Your task to perform on an android device: toggle priority inbox in the gmail app Image 0: 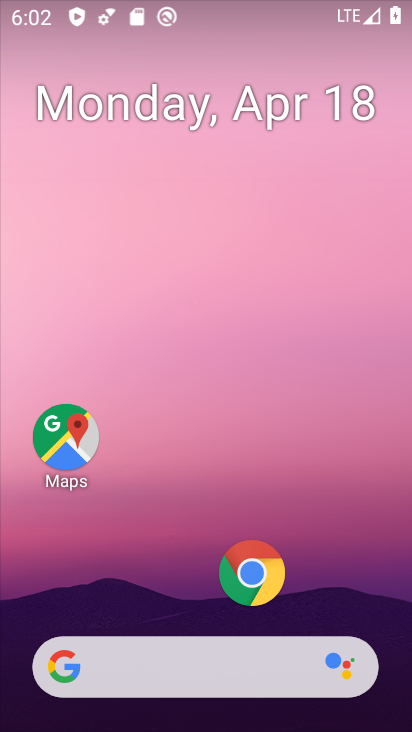
Step 0: drag from (152, 590) to (334, 4)
Your task to perform on an android device: toggle priority inbox in the gmail app Image 1: 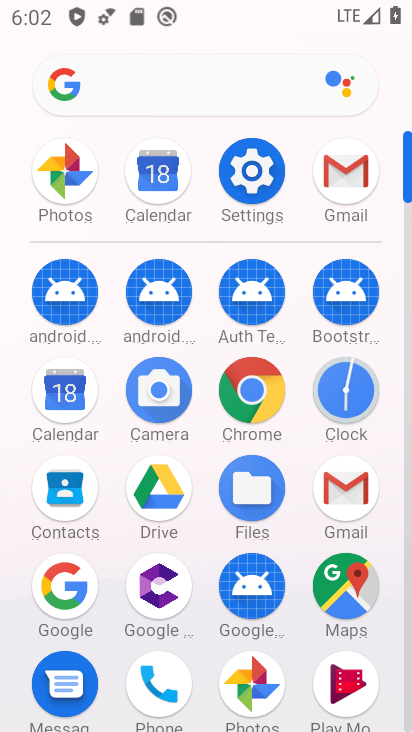
Step 1: click (341, 491)
Your task to perform on an android device: toggle priority inbox in the gmail app Image 2: 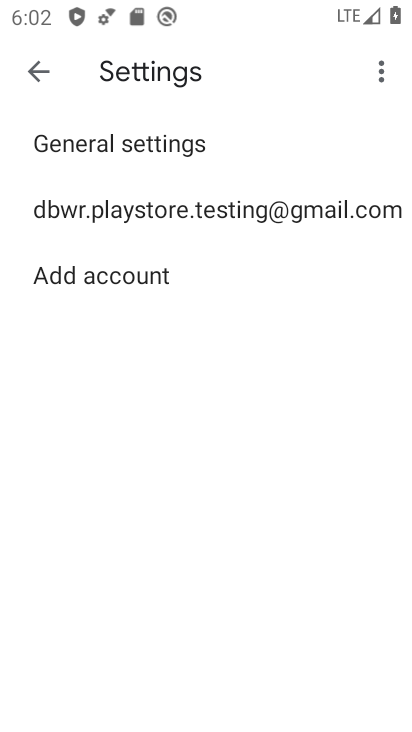
Step 2: click (146, 217)
Your task to perform on an android device: toggle priority inbox in the gmail app Image 3: 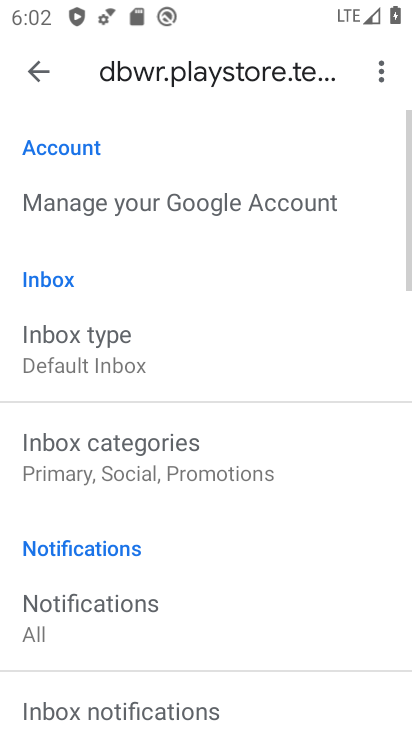
Step 3: click (84, 354)
Your task to perform on an android device: toggle priority inbox in the gmail app Image 4: 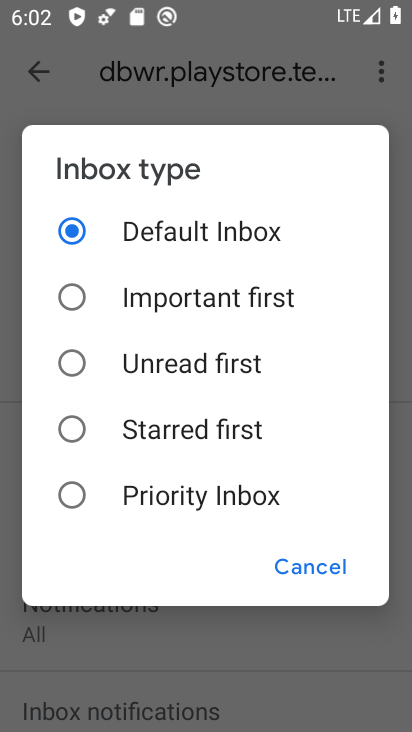
Step 4: click (66, 496)
Your task to perform on an android device: toggle priority inbox in the gmail app Image 5: 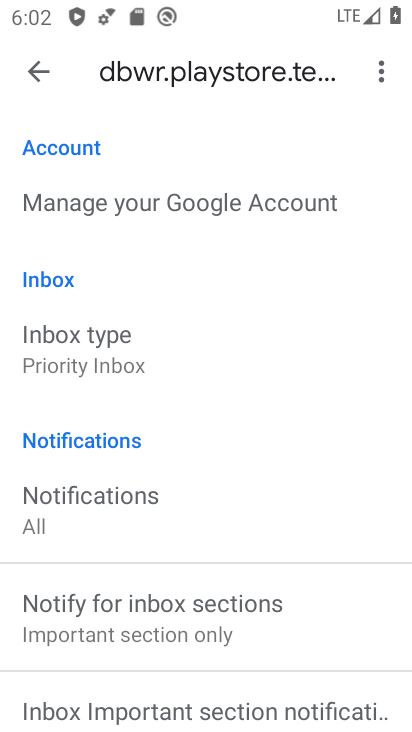
Step 5: task complete